Your task to perform on an android device: Open Chrome and go to settings Image 0: 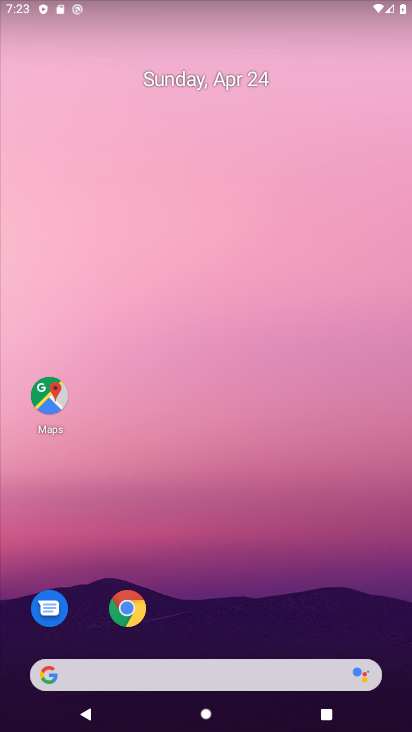
Step 0: click (137, 605)
Your task to perform on an android device: Open Chrome and go to settings Image 1: 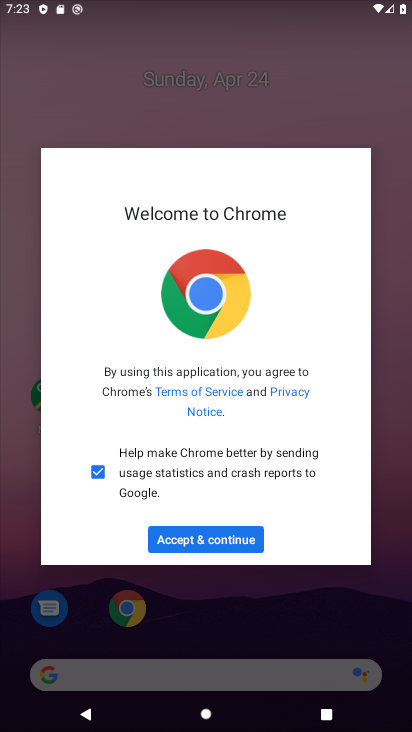
Step 1: click (204, 539)
Your task to perform on an android device: Open Chrome and go to settings Image 2: 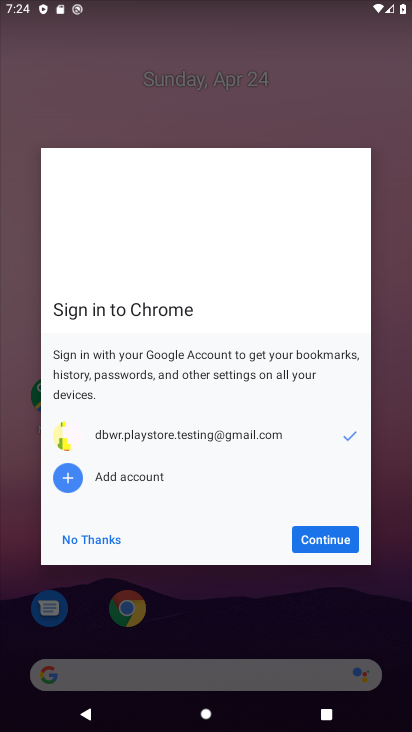
Step 2: click (309, 540)
Your task to perform on an android device: Open Chrome and go to settings Image 3: 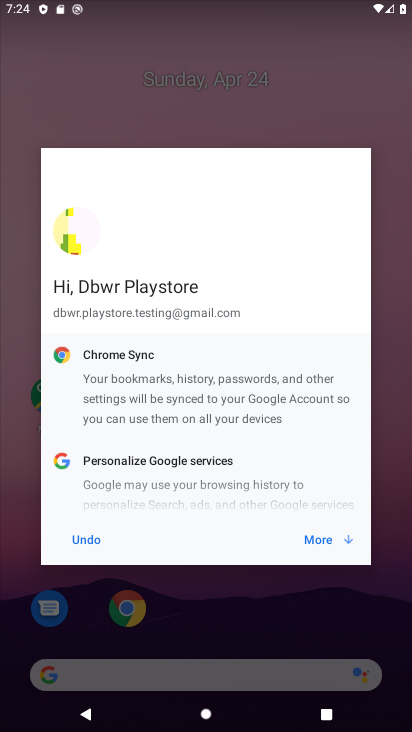
Step 3: click (309, 540)
Your task to perform on an android device: Open Chrome and go to settings Image 4: 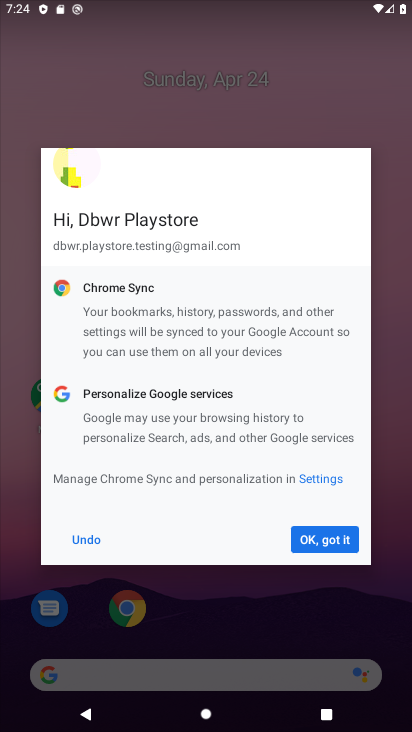
Step 4: click (309, 540)
Your task to perform on an android device: Open Chrome and go to settings Image 5: 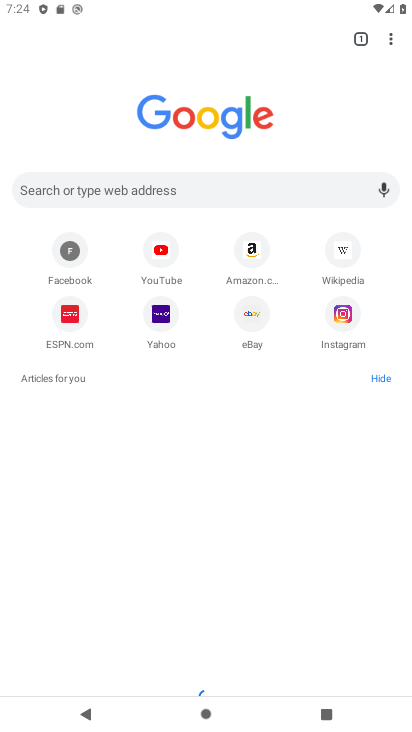
Step 5: click (393, 38)
Your task to perform on an android device: Open Chrome and go to settings Image 6: 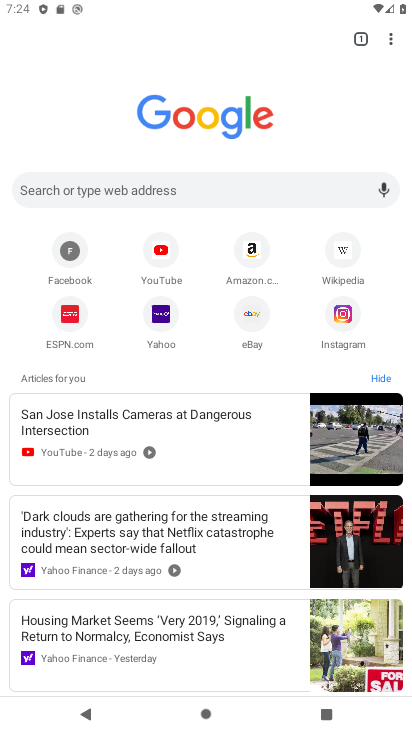
Step 6: click (385, 37)
Your task to perform on an android device: Open Chrome and go to settings Image 7: 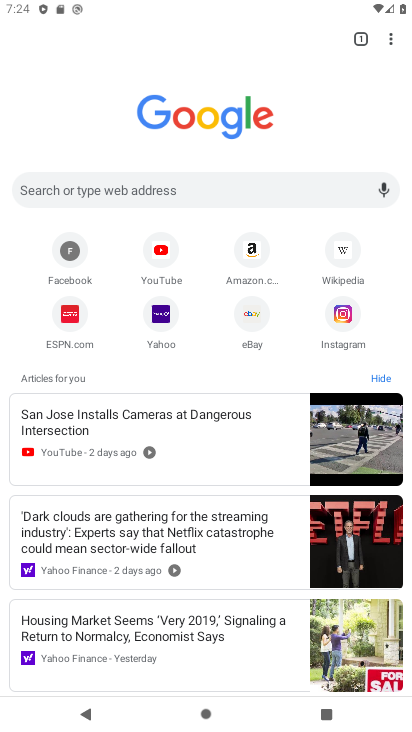
Step 7: click (385, 37)
Your task to perform on an android device: Open Chrome and go to settings Image 8: 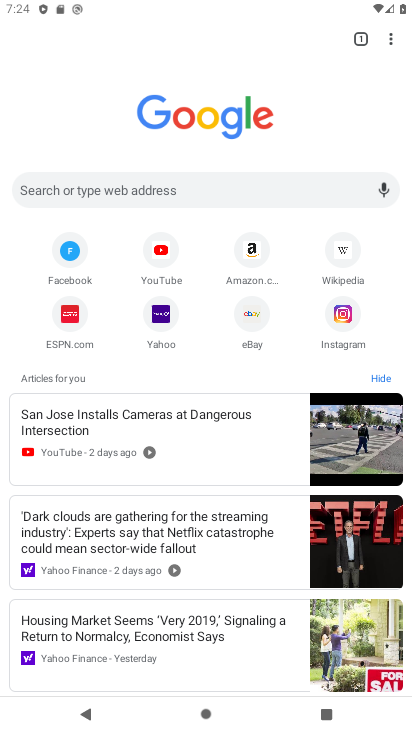
Step 8: click (393, 37)
Your task to perform on an android device: Open Chrome and go to settings Image 9: 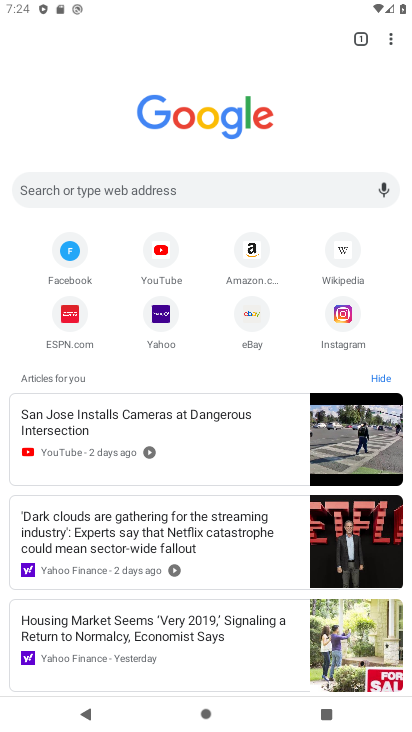
Step 9: click (393, 37)
Your task to perform on an android device: Open Chrome and go to settings Image 10: 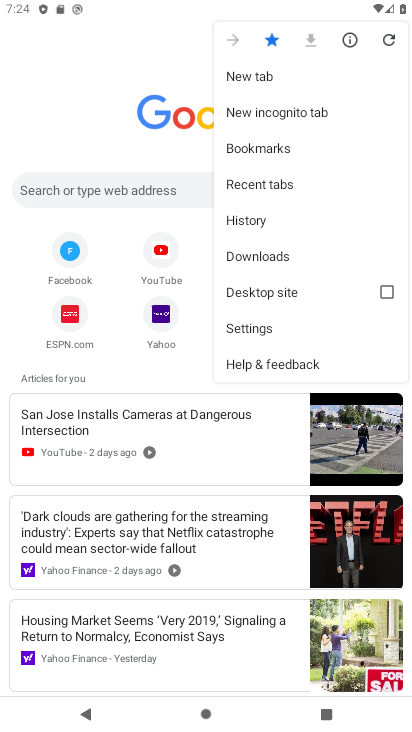
Step 10: click (281, 325)
Your task to perform on an android device: Open Chrome and go to settings Image 11: 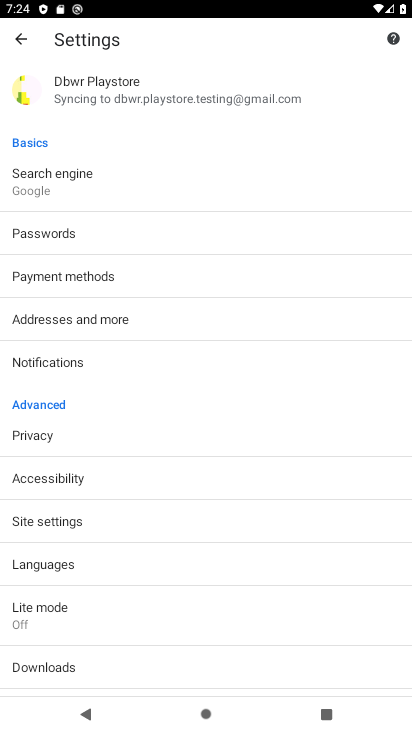
Step 11: task complete